Your task to perform on an android device: turn on showing notifications on the lock screen Image 0: 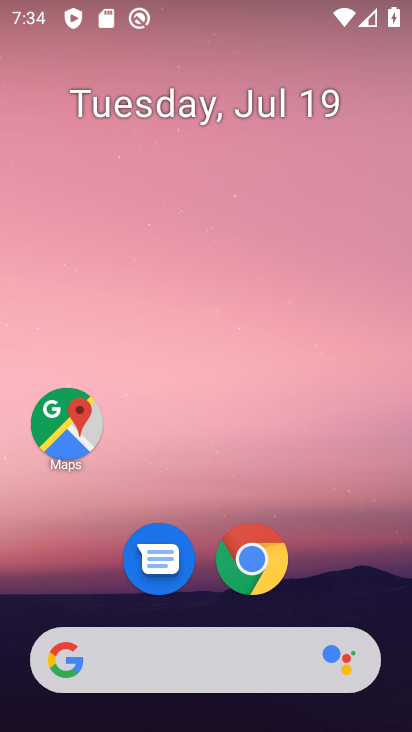
Step 0: drag from (121, 484) to (228, 14)
Your task to perform on an android device: turn on showing notifications on the lock screen Image 1: 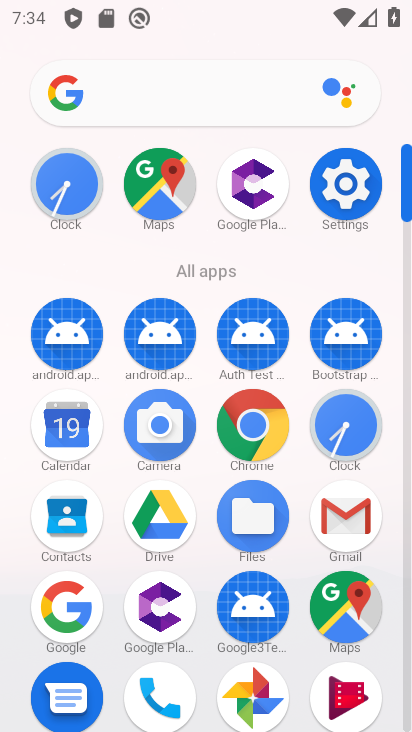
Step 1: click (357, 178)
Your task to perform on an android device: turn on showing notifications on the lock screen Image 2: 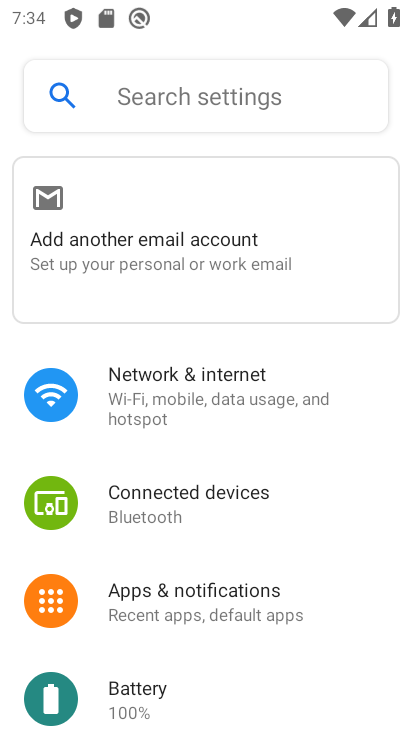
Step 2: click (221, 604)
Your task to perform on an android device: turn on showing notifications on the lock screen Image 3: 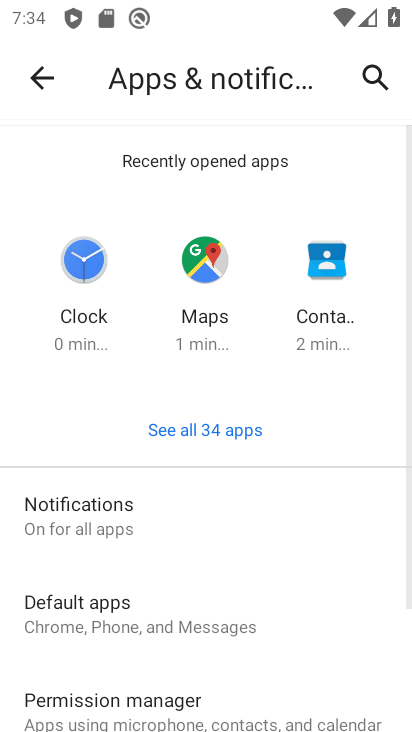
Step 3: click (126, 522)
Your task to perform on an android device: turn on showing notifications on the lock screen Image 4: 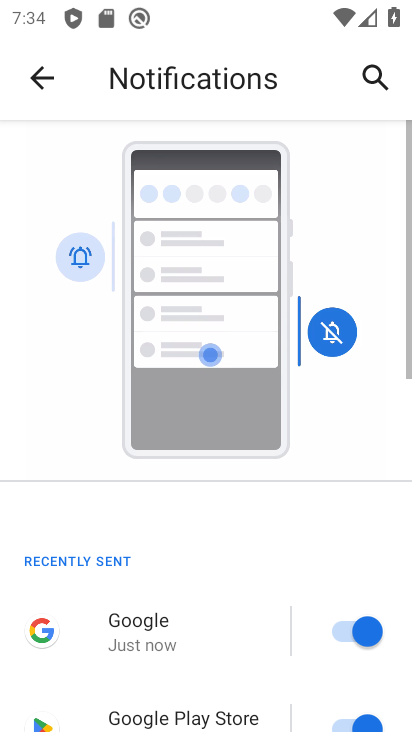
Step 4: drag from (166, 654) to (351, 1)
Your task to perform on an android device: turn on showing notifications on the lock screen Image 5: 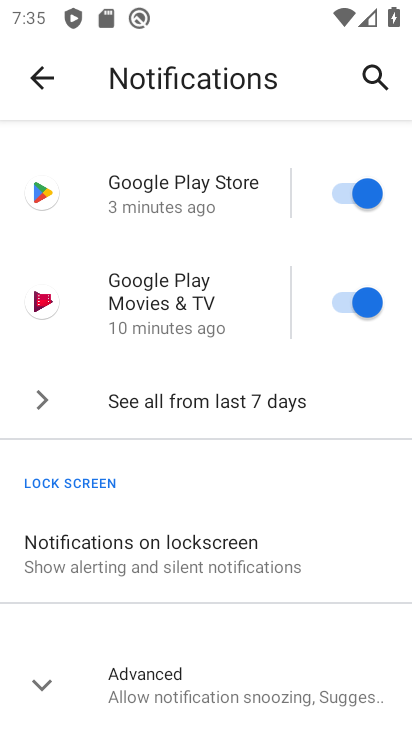
Step 5: click (230, 556)
Your task to perform on an android device: turn on showing notifications on the lock screen Image 6: 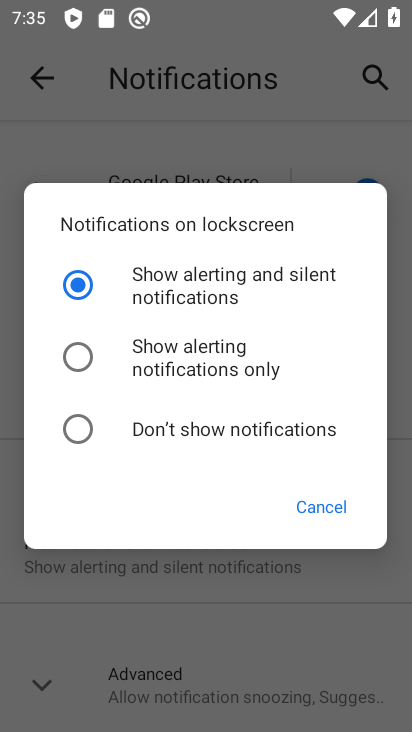
Step 6: click (78, 278)
Your task to perform on an android device: turn on showing notifications on the lock screen Image 7: 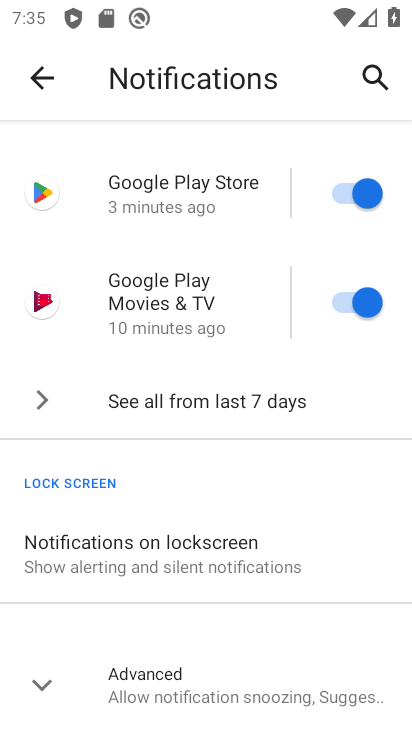
Step 7: task complete